Your task to perform on an android device: open wifi settings Image 0: 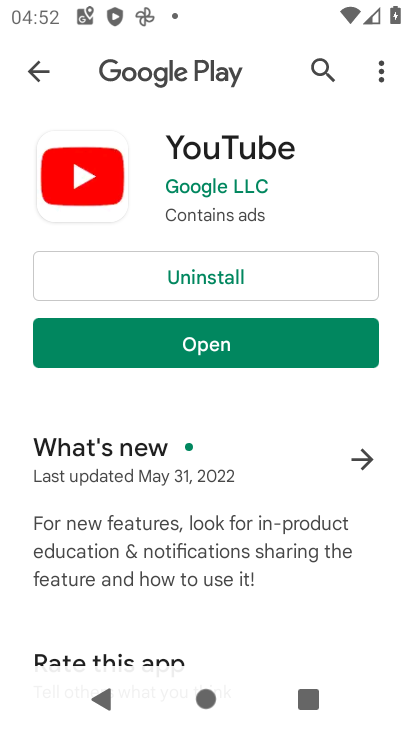
Step 0: press home button
Your task to perform on an android device: open wifi settings Image 1: 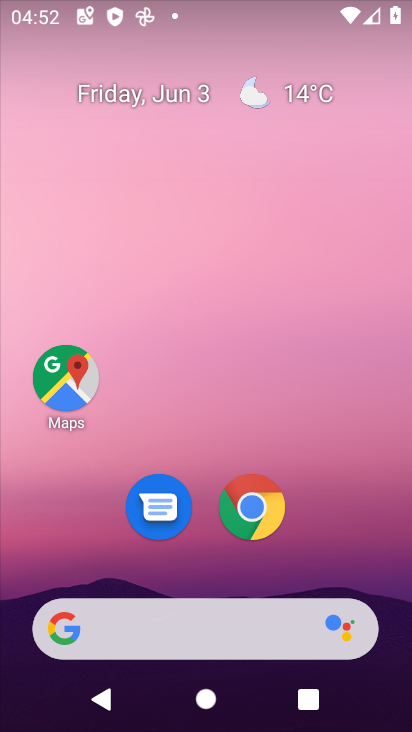
Step 1: drag from (330, 509) to (301, 176)
Your task to perform on an android device: open wifi settings Image 2: 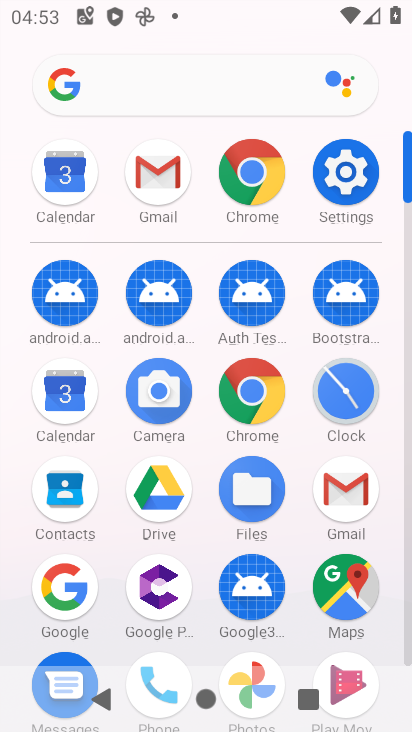
Step 2: click (334, 164)
Your task to perform on an android device: open wifi settings Image 3: 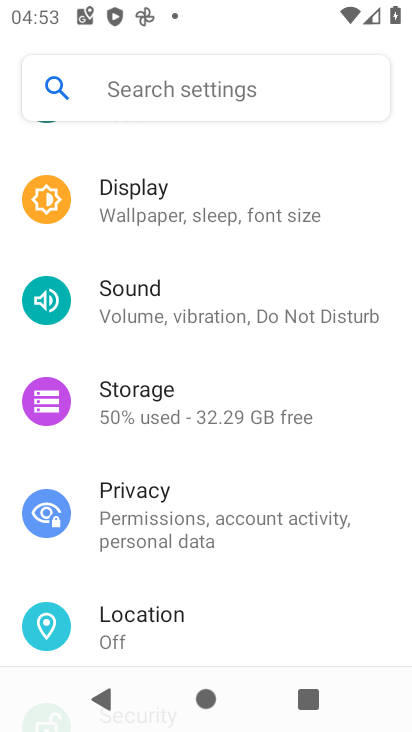
Step 3: drag from (330, 146) to (299, 729)
Your task to perform on an android device: open wifi settings Image 4: 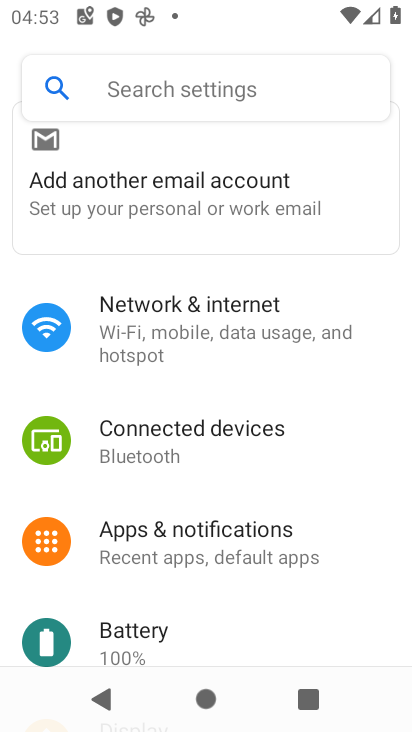
Step 4: click (153, 341)
Your task to perform on an android device: open wifi settings Image 5: 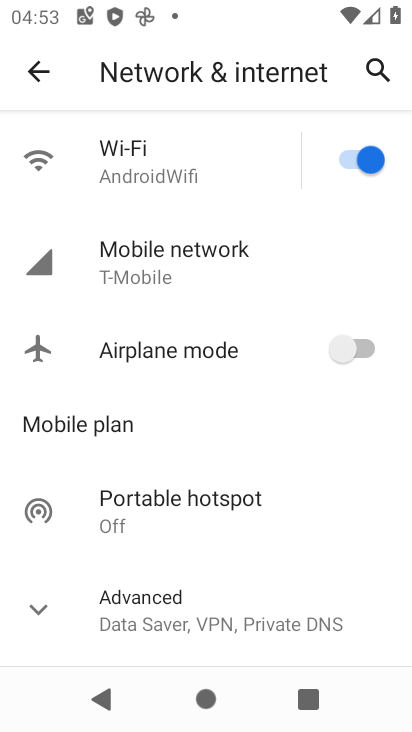
Step 5: click (135, 161)
Your task to perform on an android device: open wifi settings Image 6: 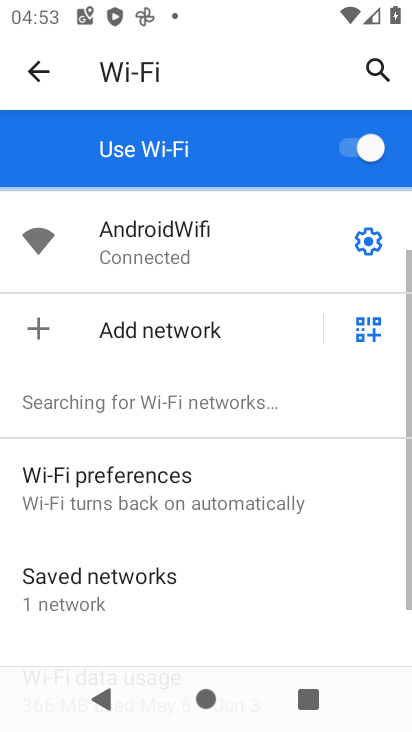
Step 6: click (382, 238)
Your task to perform on an android device: open wifi settings Image 7: 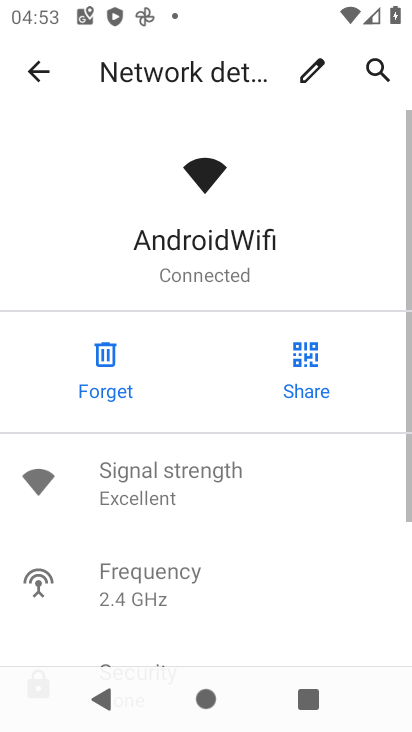
Step 7: task complete